Your task to perform on an android device: search for starred emails in the gmail app Image 0: 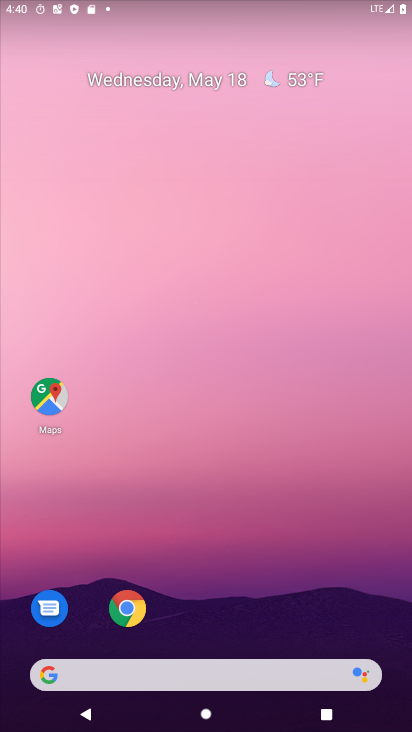
Step 0: drag from (164, 647) to (134, 96)
Your task to perform on an android device: search for starred emails in the gmail app Image 1: 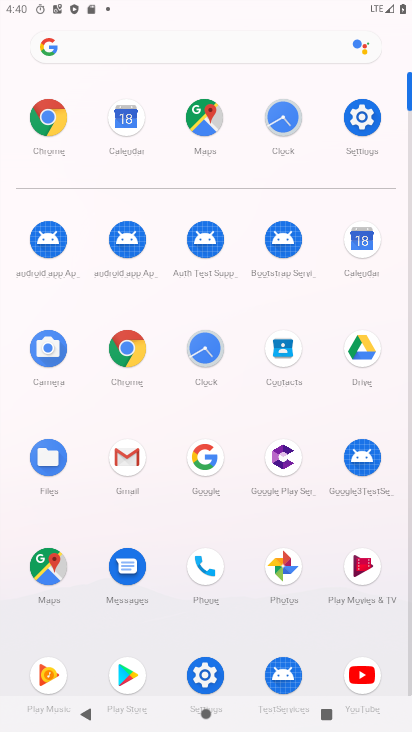
Step 1: click (119, 457)
Your task to perform on an android device: search for starred emails in the gmail app Image 2: 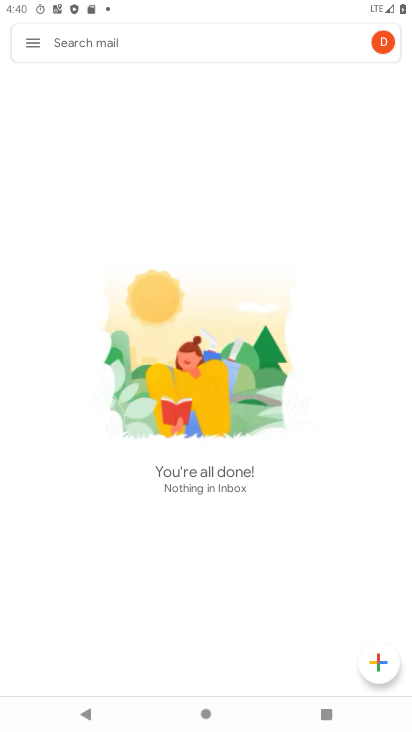
Step 2: click (22, 39)
Your task to perform on an android device: search for starred emails in the gmail app Image 3: 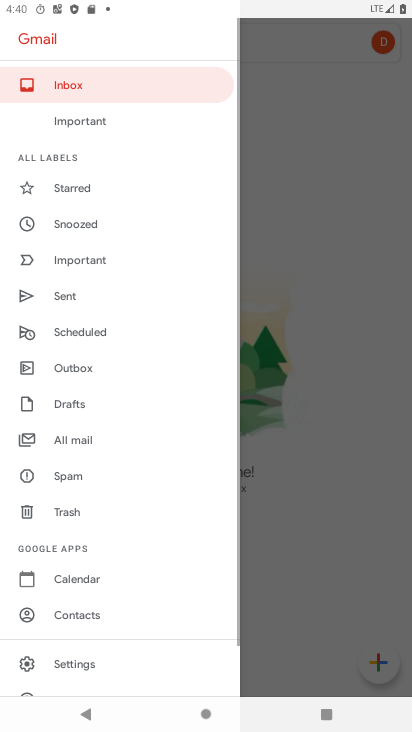
Step 3: click (78, 184)
Your task to perform on an android device: search for starred emails in the gmail app Image 4: 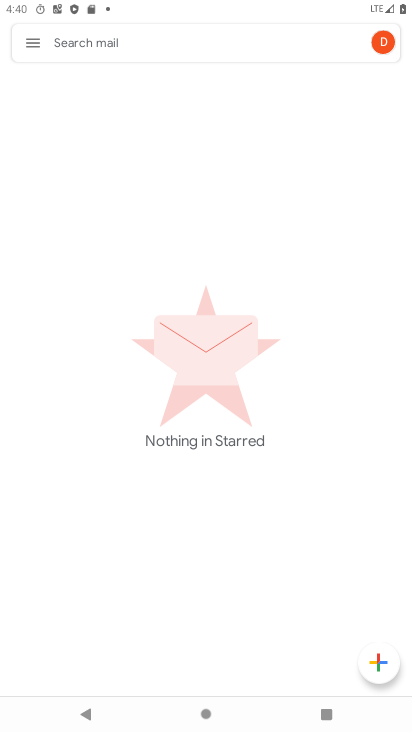
Step 4: task complete